Your task to perform on an android device: Open Chrome and go to settings Image 0: 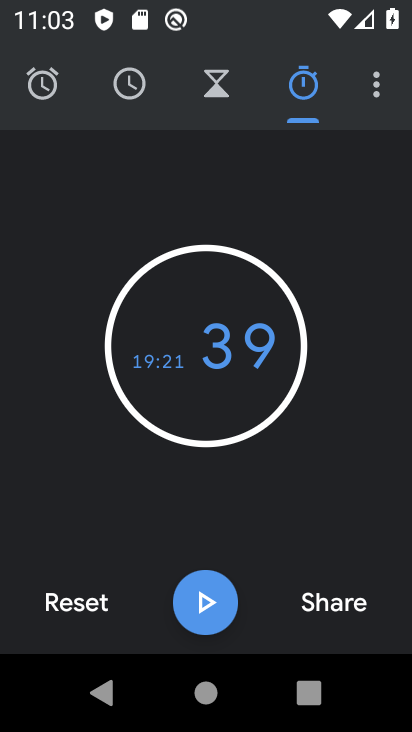
Step 0: press back button
Your task to perform on an android device: Open Chrome and go to settings Image 1: 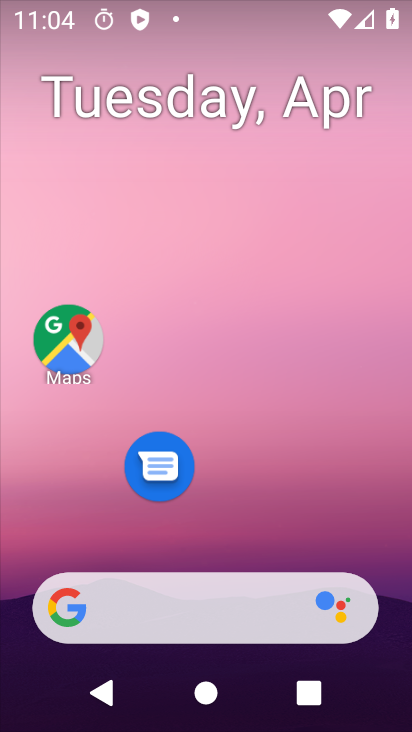
Step 1: drag from (257, 507) to (215, 113)
Your task to perform on an android device: Open Chrome and go to settings Image 2: 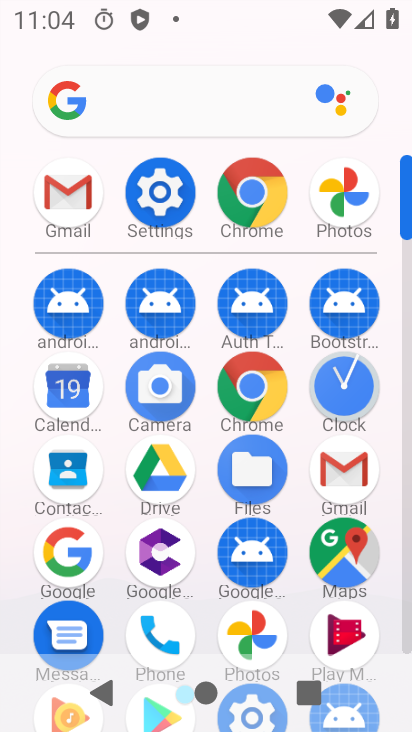
Step 2: click (264, 196)
Your task to perform on an android device: Open Chrome and go to settings Image 3: 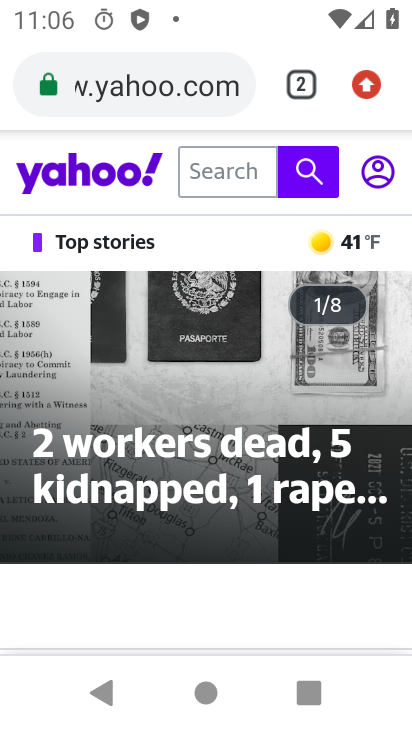
Step 3: click (363, 92)
Your task to perform on an android device: Open Chrome and go to settings Image 4: 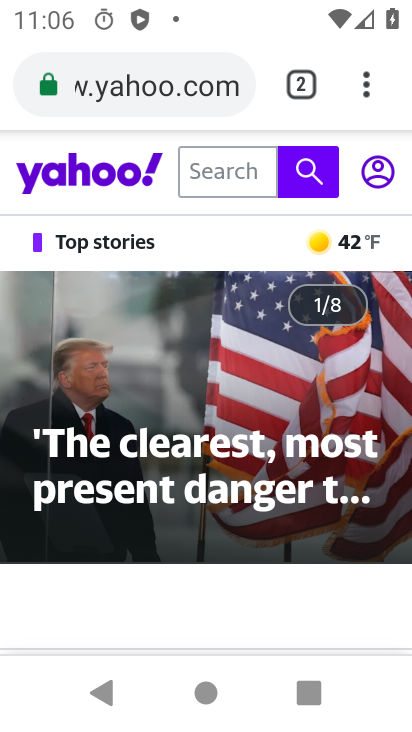
Step 4: click (363, 107)
Your task to perform on an android device: Open Chrome and go to settings Image 5: 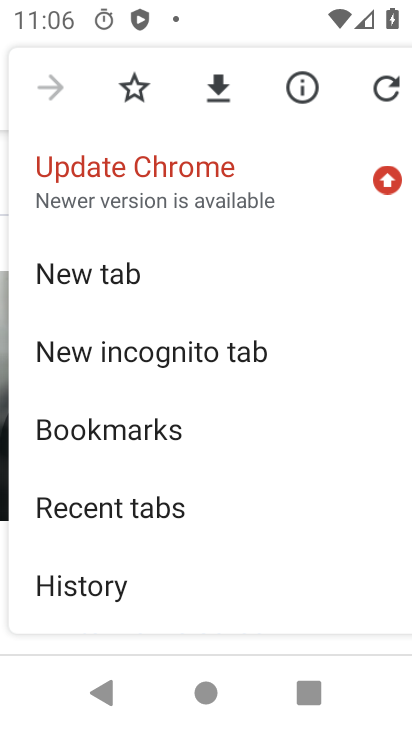
Step 5: drag from (242, 523) to (208, 199)
Your task to perform on an android device: Open Chrome and go to settings Image 6: 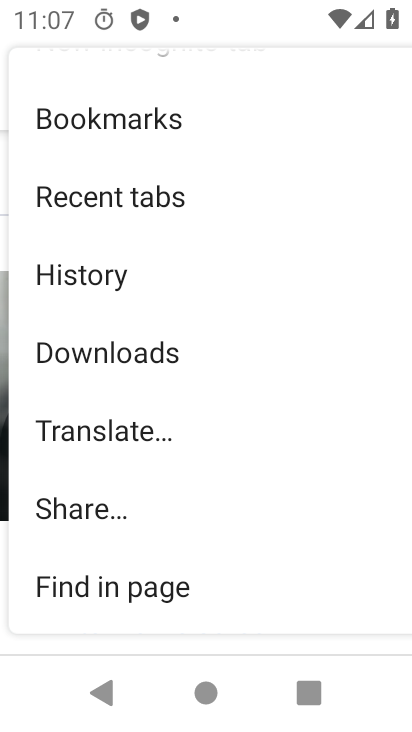
Step 6: drag from (170, 564) to (159, 369)
Your task to perform on an android device: Open Chrome and go to settings Image 7: 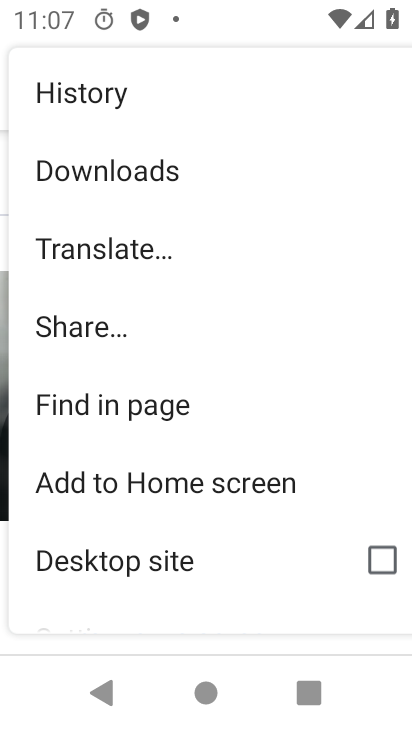
Step 7: drag from (171, 524) to (169, 375)
Your task to perform on an android device: Open Chrome and go to settings Image 8: 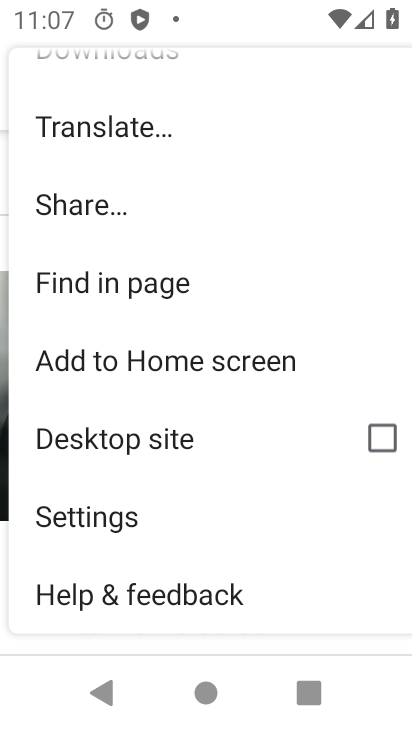
Step 8: click (148, 508)
Your task to perform on an android device: Open Chrome and go to settings Image 9: 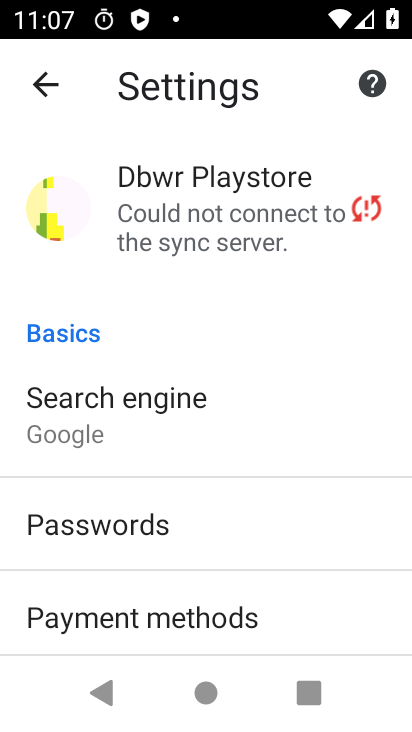
Step 9: task complete